Your task to perform on an android device: Show the shopping cart on costco.com. Search for "macbook" on costco.com, select the first entry, and add it to the cart. Image 0: 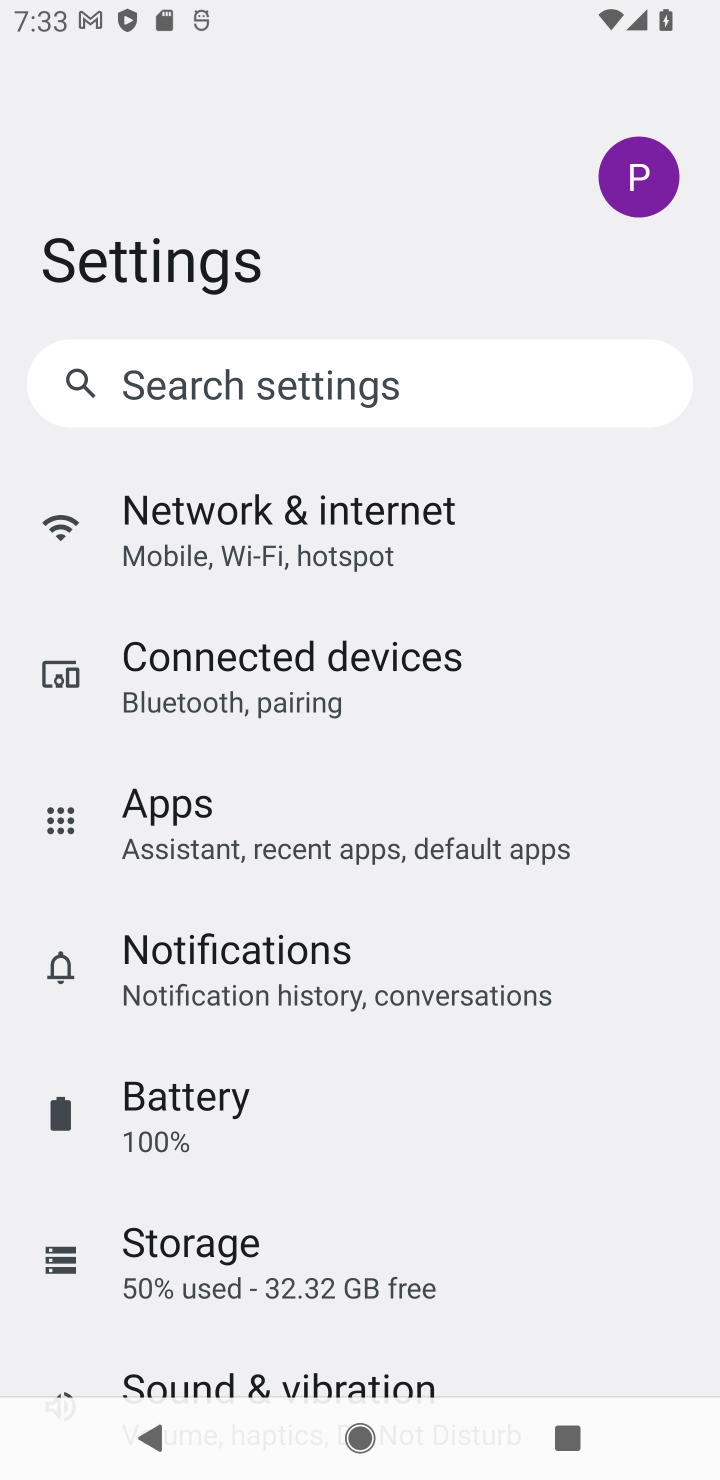
Step 0: press home button
Your task to perform on an android device: Show the shopping cart on costco.com. Search for "macbook" on costco.com, select the first entry, and add it to the cart. Image 1: 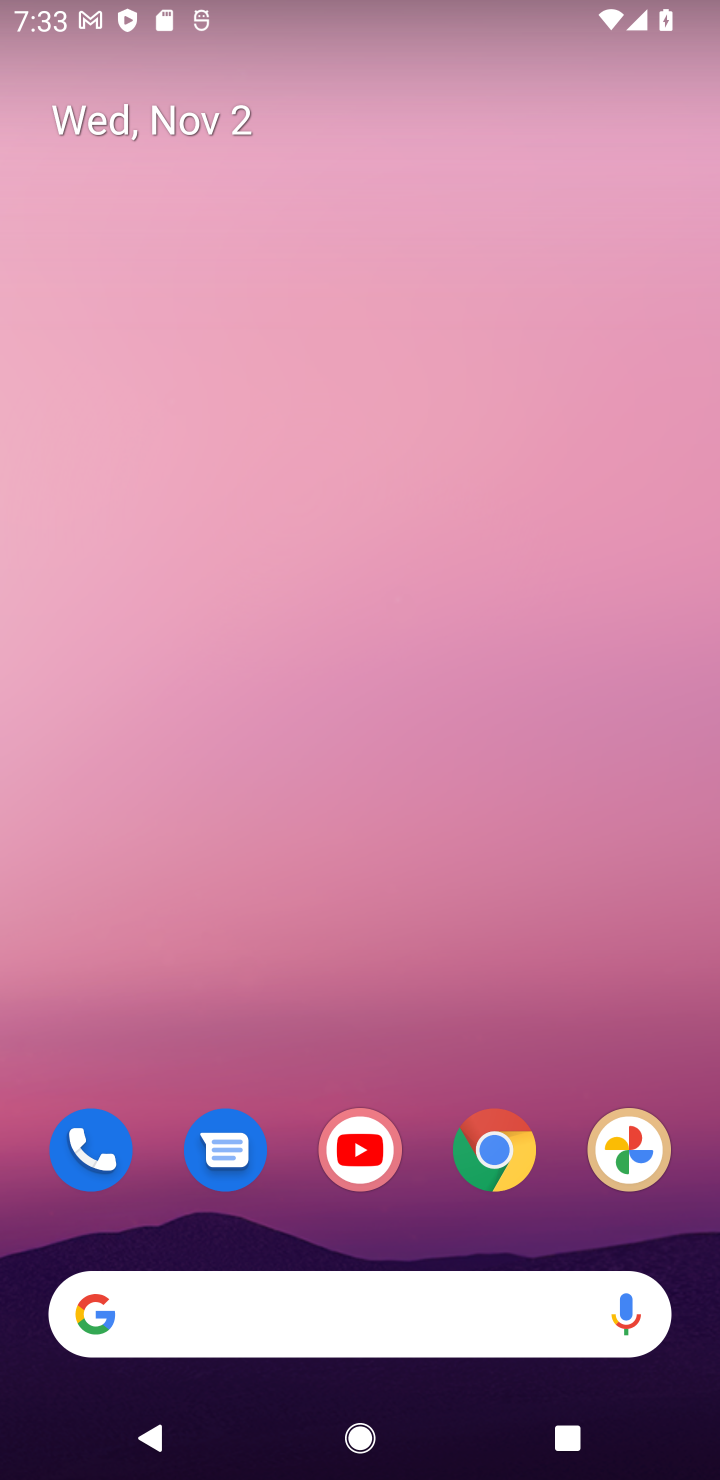
Step 1: click (502, 1127)
Your task to perform on an android device: Show the shopping cart on costco.com. Search for "macbook" on costco.com, select the first entry, and add it to the cart. Image 2: 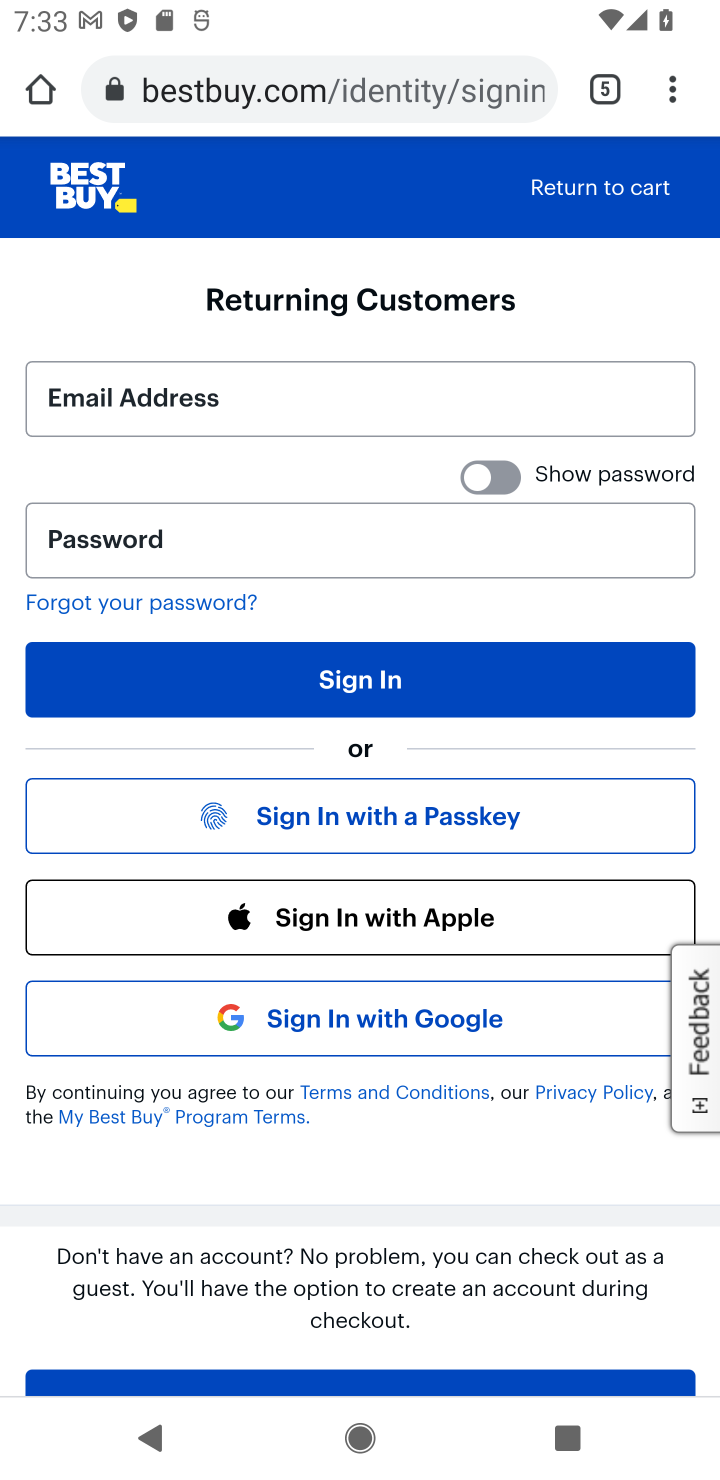
Step 2: click (594, 83)
Your task to perform on an android device: Show the shopping cart on costco.com. Search for "macbook" on costco.com, select the first entry, and add it to the cart. Image 3: 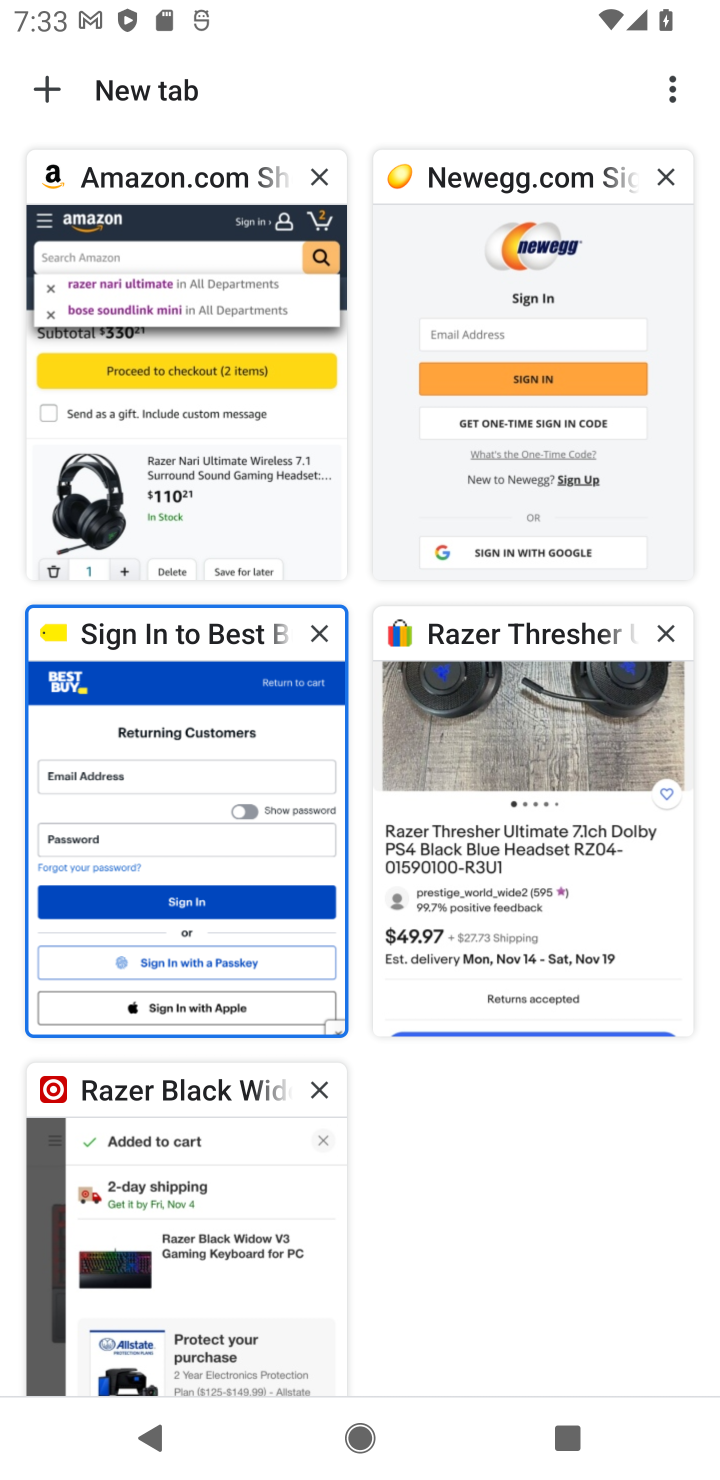
Step 3: click (118, 1124)
Your task to perform on an android device: Show the shopping cart on costco.com. Search for "macbook" on costco.com, select the first entry, and add it to the cart. Image 4: 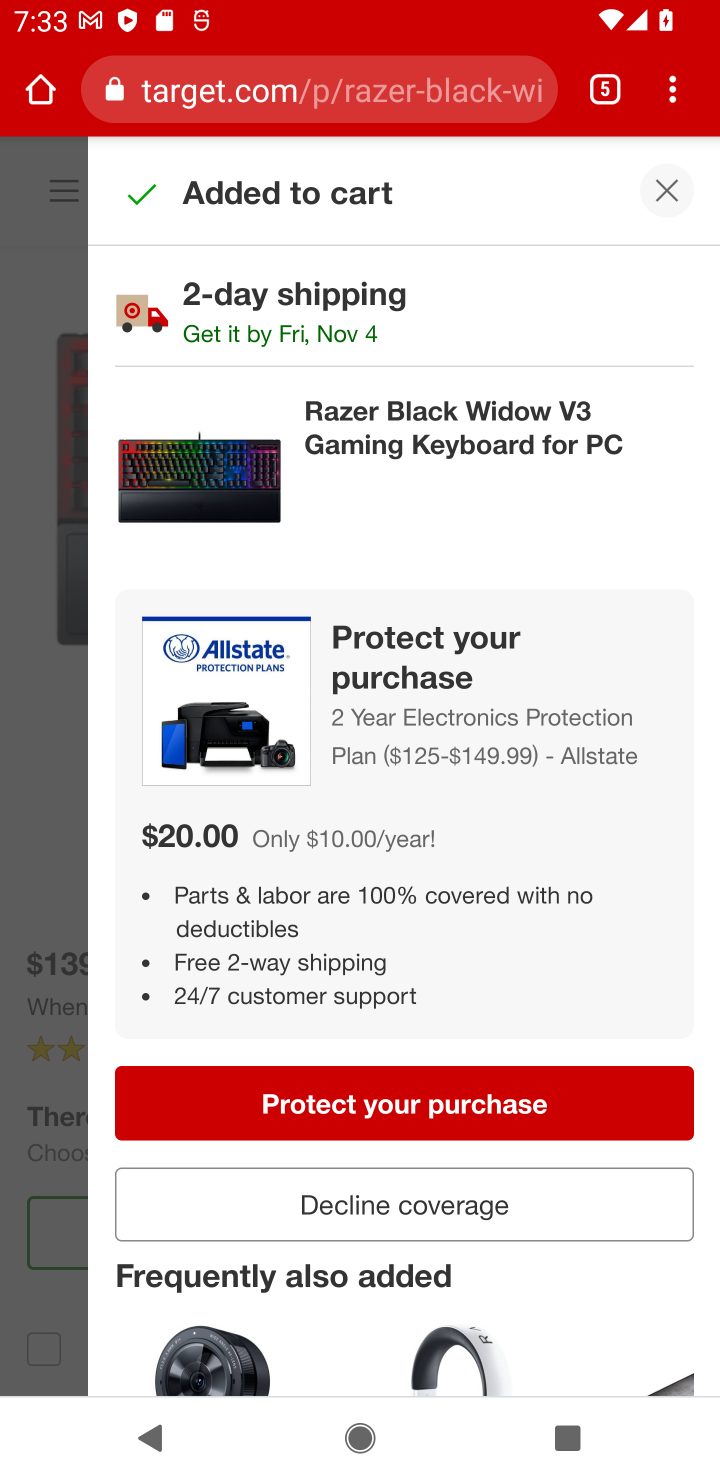
Step 4: click (595, 76)
Your task to perform on an android device: Show the shopping cart on costco.com. Search for "macbook" on costco.com, select the first entry, and add it to the cart. Image 5: 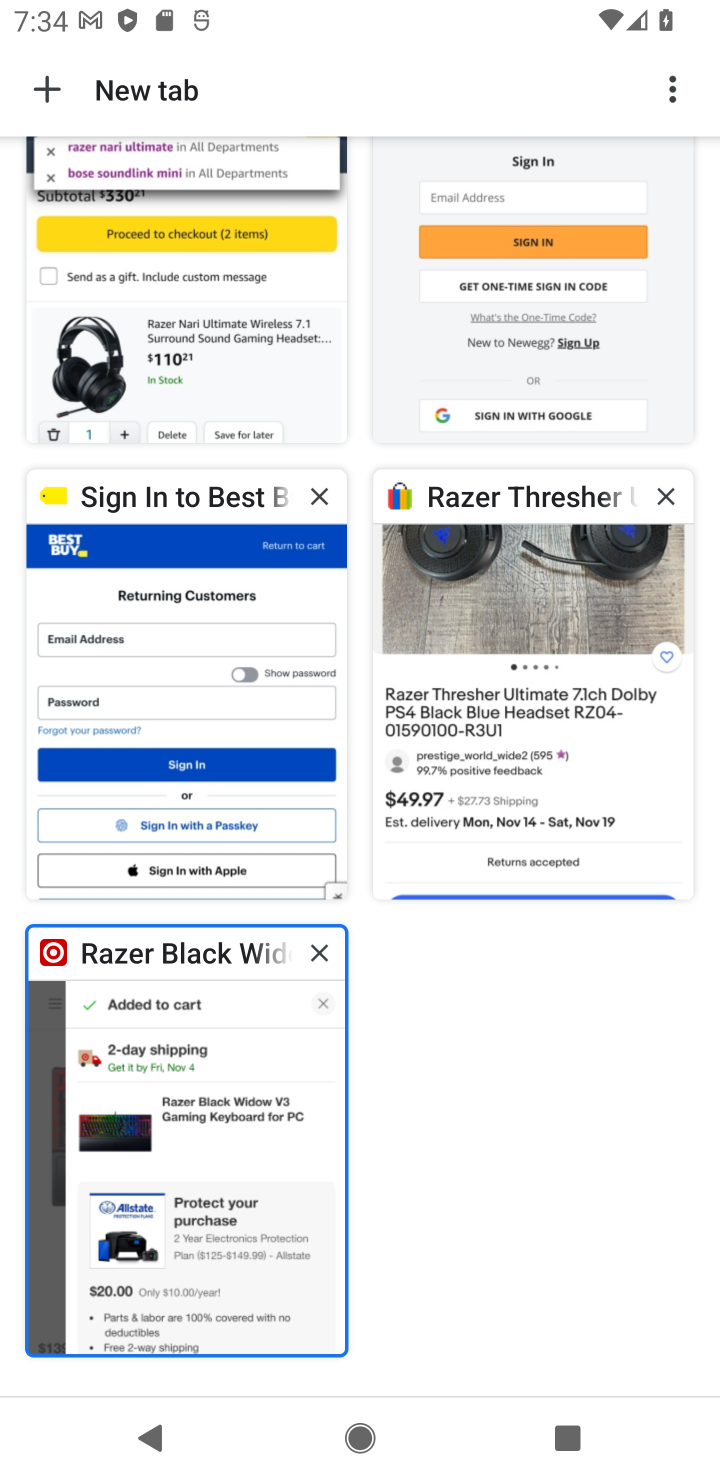
Step 5: click (475, 948)
Your task to perform on an android device: Show the shopping cart on costco.com. Search for "macbook" on costco.com, select the first entry, and add it to the cart. Image 6: 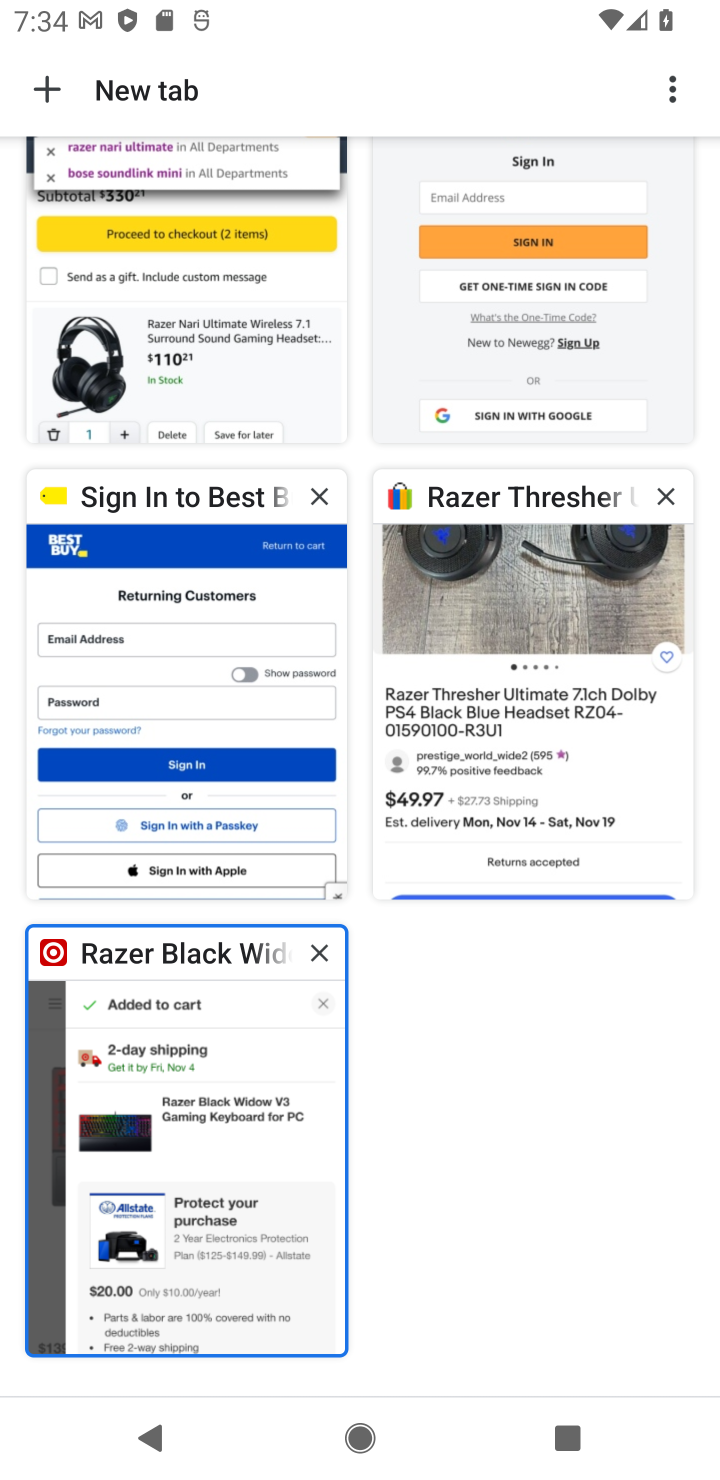
Step 6: drag from (444, 346) to (370, 1067)
Your task to perform on an android device: Show the shopping cart on costco.com. Search for "macbook" on costco.com, select the first entry, and add it to the cart. Image 7: 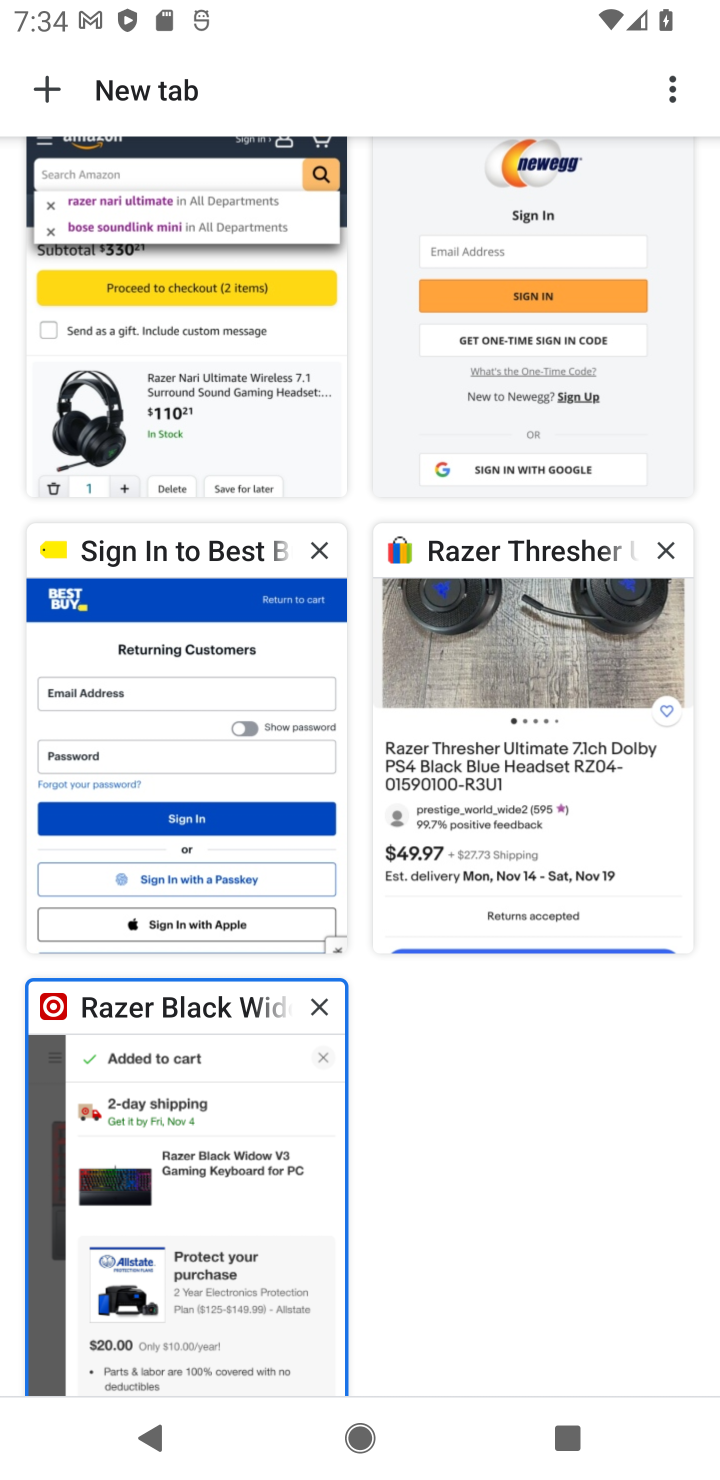
Step 7: drag from (496, 277) to (398, 1104)
Your task to perform on an android device: Show the shopping cart on costco.com. Search for "macbook" on costco.com, select the first entry, and add it to the cart. Image 8: 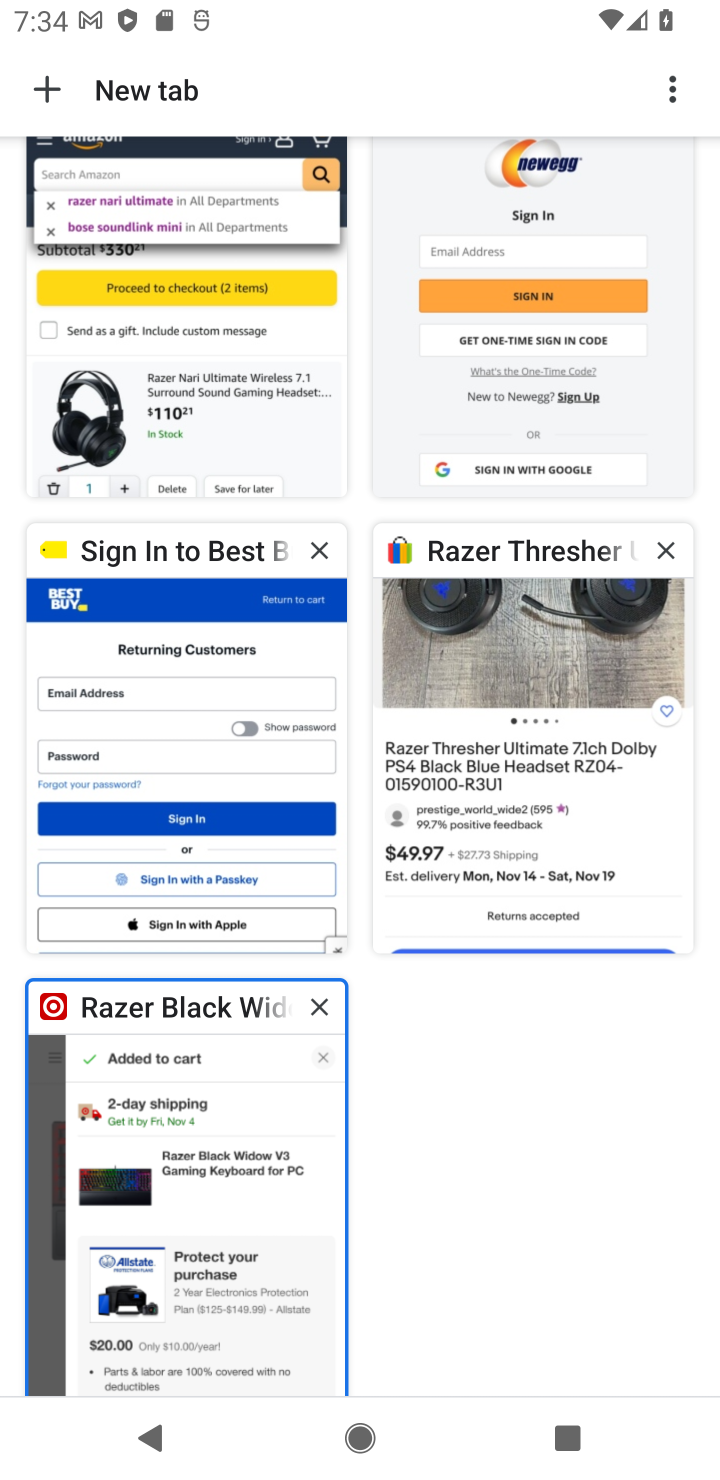
Step 8: click (45, 85)
Your task to perform on an android device: Show the shopping cart on costco.com. Search for "macbook" on costco.com, select the first entry, and add it to the cart. Image 9: 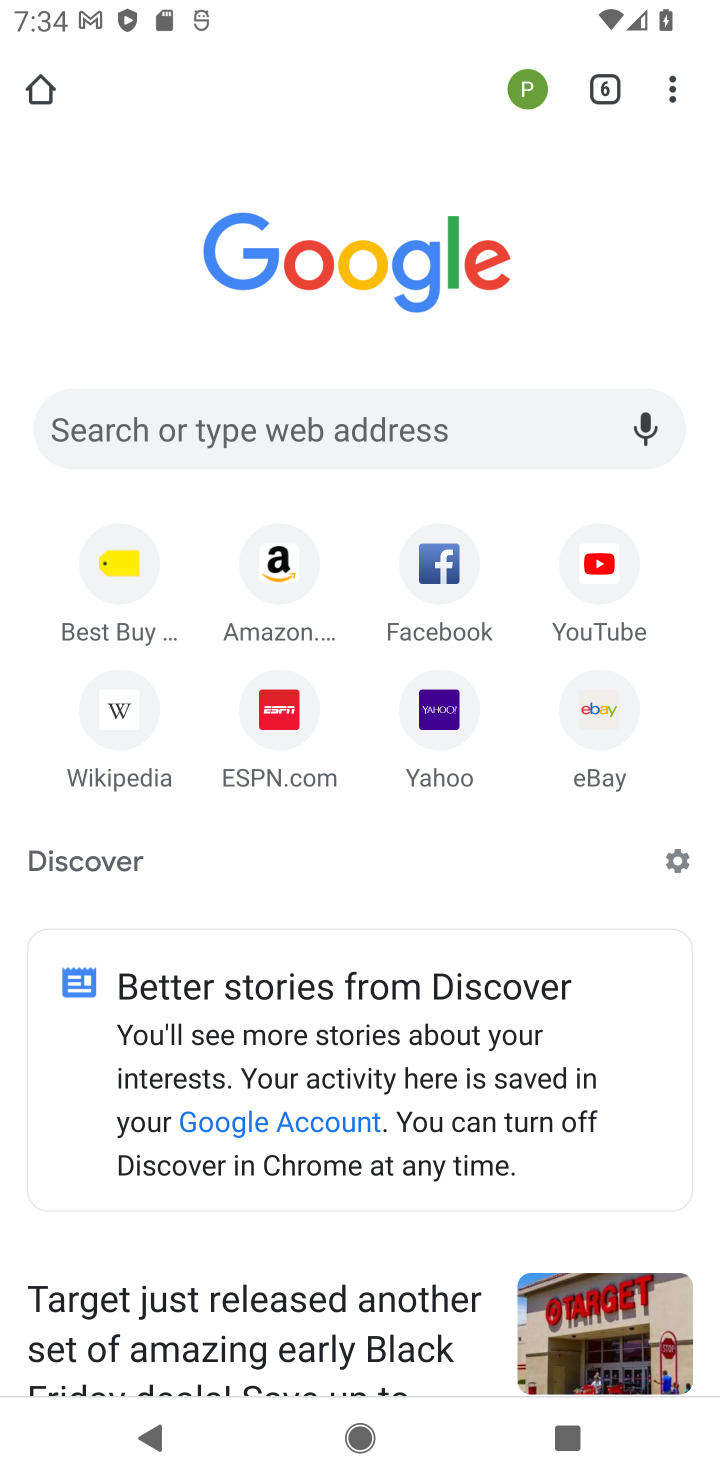
Step 9: click (337, 422)
Your task to perform on an android device: Show the shopping cart on costco.com. Search for "macbook" on costco.com, select the first entry, and add it to the cart. Image 10: 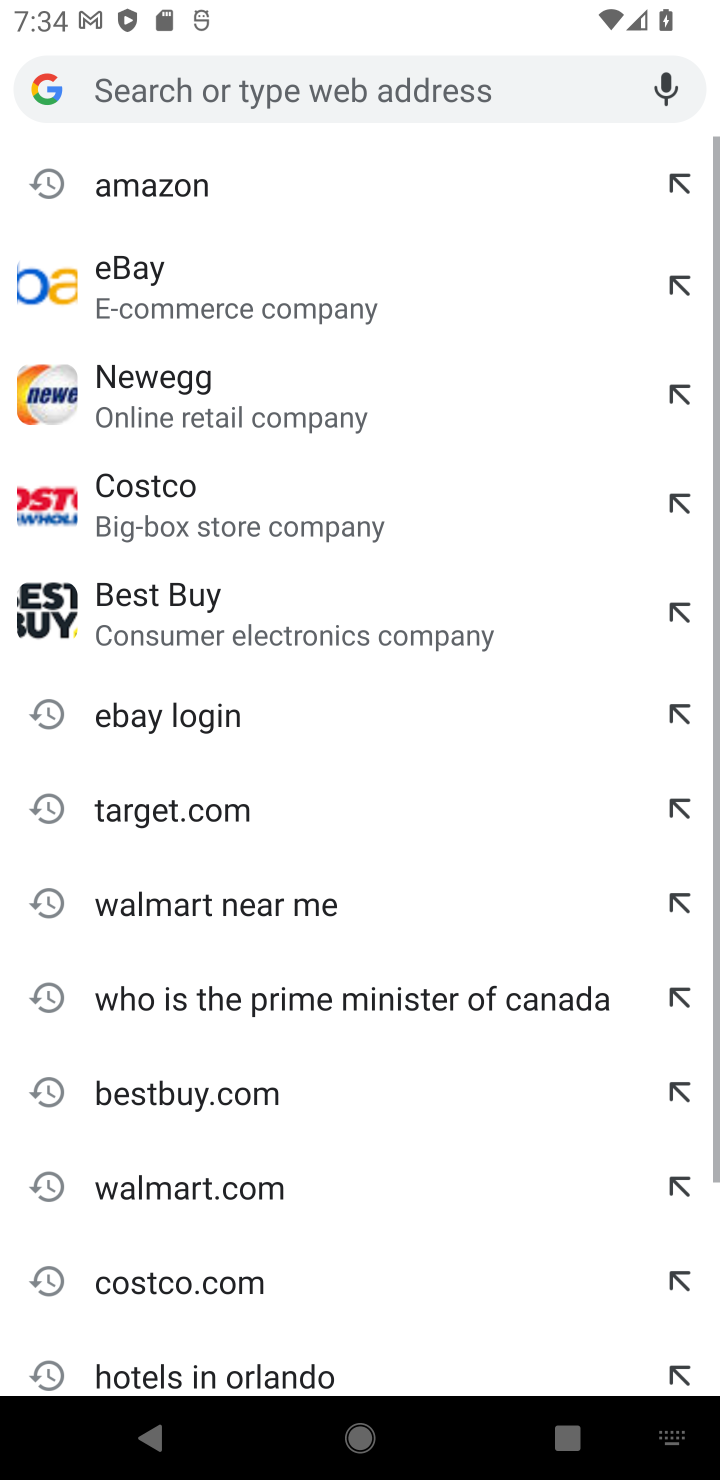
Step 10: type "costco"
Your task to perform on an android device: Show the shopping cart on costco.com. Search for "macbook" on costco.com, select the first entry, and add it to the cart. Image 11: 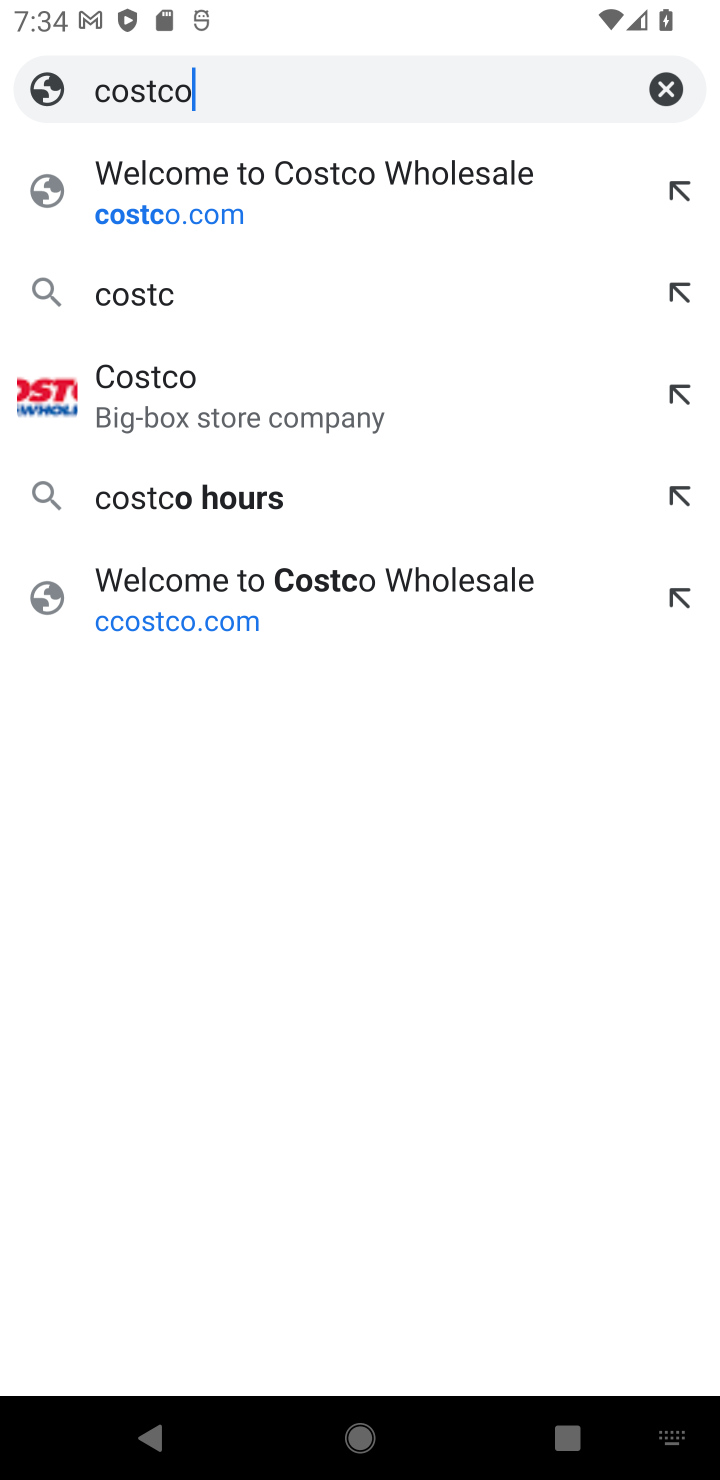
Step 11: click (200, 501)
Your task to perform on an android device: Show the shopping cart on costco.com. Search for "macbook" on costco.com, select the first entry, and add it to the cart. Image 12: 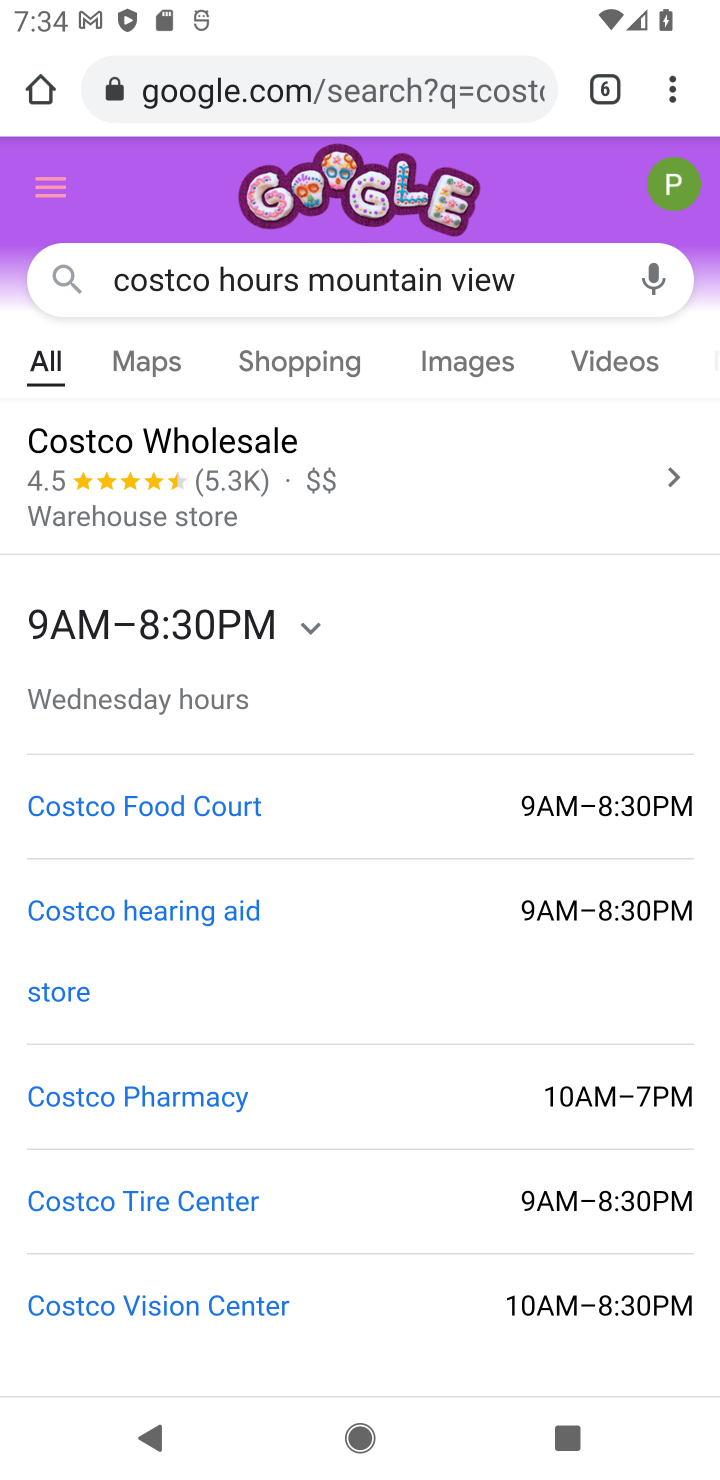
Step 12: drag from (302, 961) to (489, 68)
Your task to perform on an android device: Show the shopping cart on costco.com. Search for "macbook" on costco.com, select the first entry, and add it to the cart. Image 13: 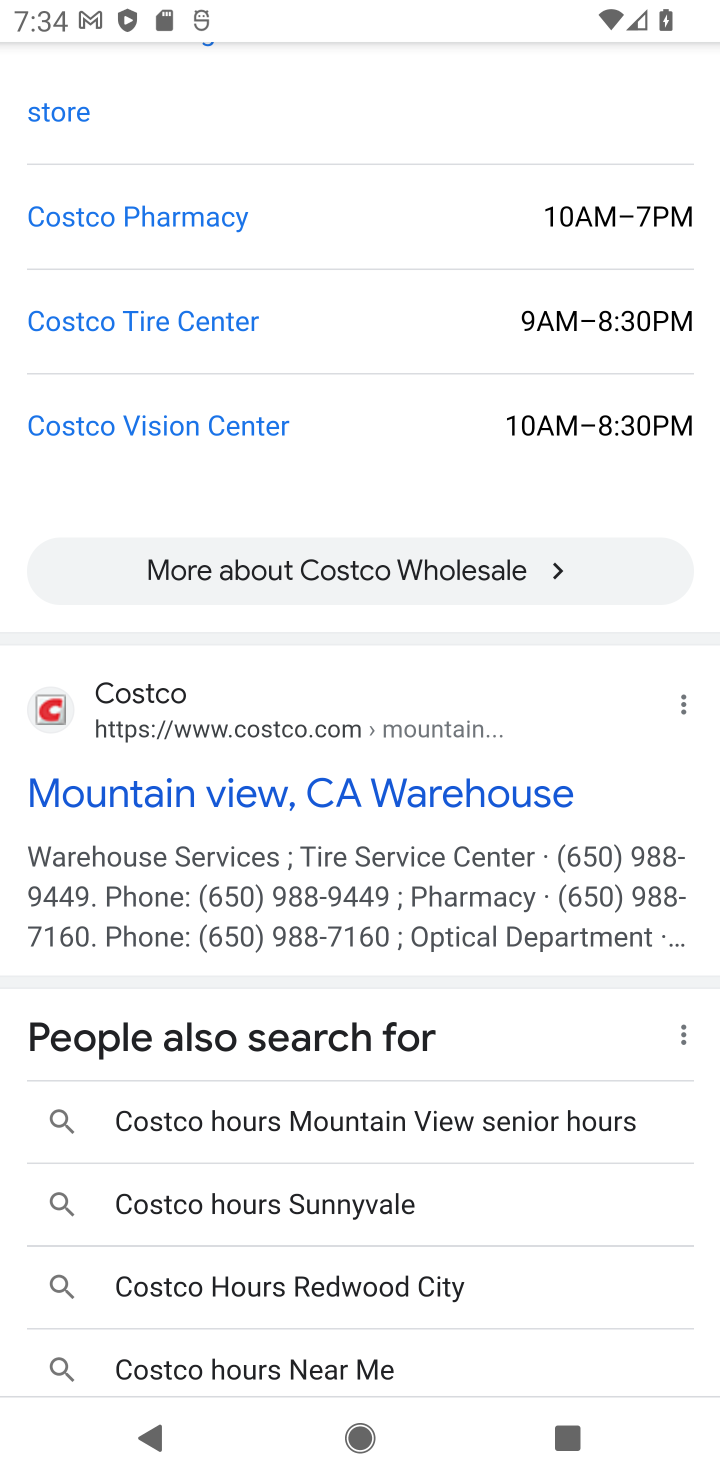
Step 13: click (344, 793)
Your task to perform on an android device: Show the shopping cart on costco.com. Search for "macbook" on costco.com, select the first entry, and add it to the cart. Image 14: 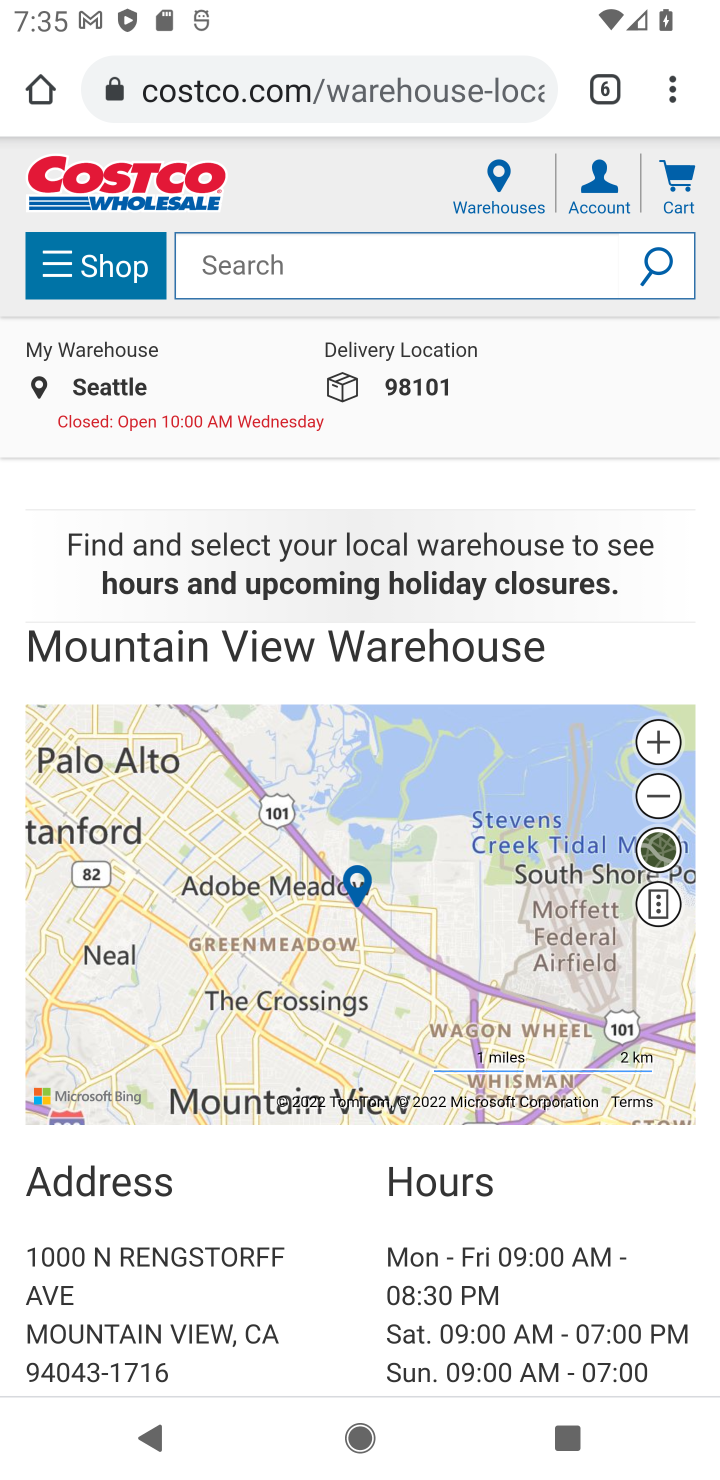
Step 14: click (309, 244)
Your task to perform on an android device: Show the shopping cart on costco.com. Search for "macbook" on costco.com, select the first entry, and add it to the cart. Image 15: 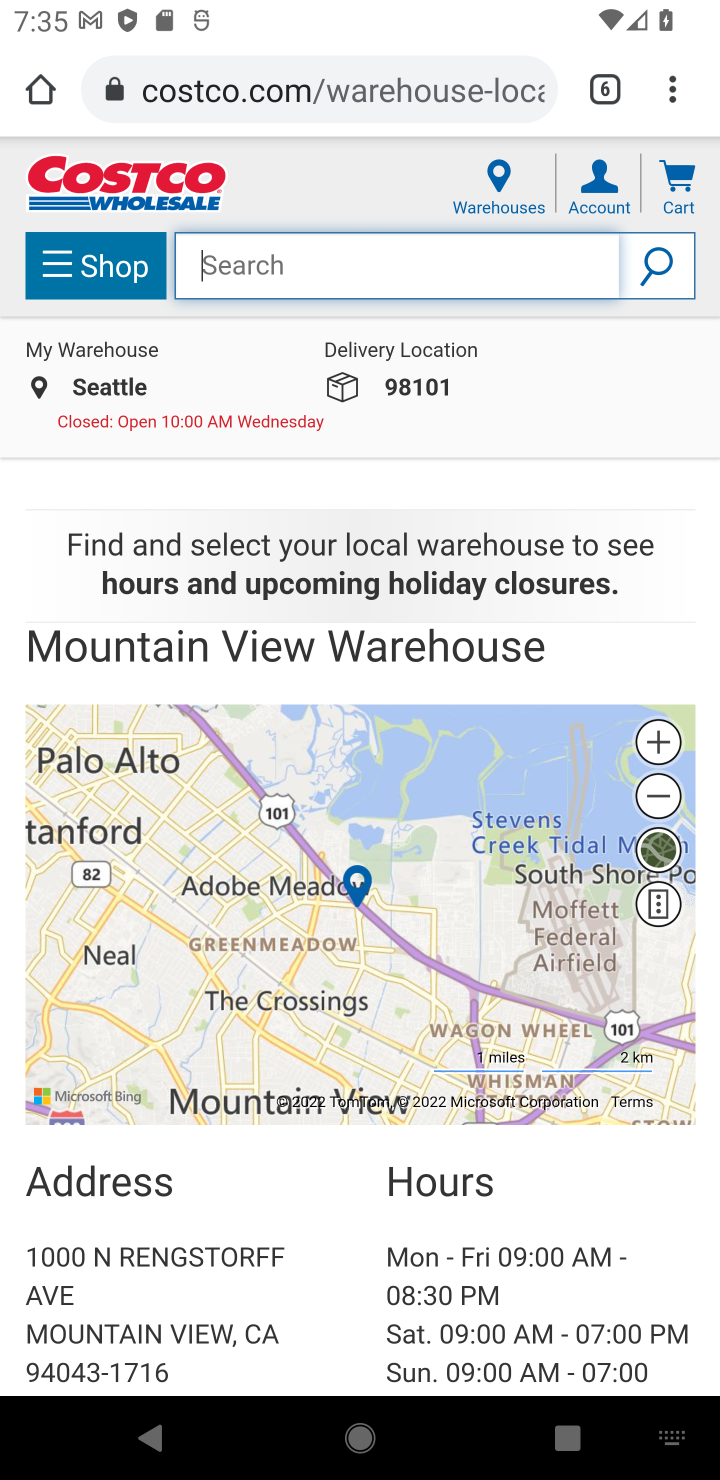
Step 15: type "macbook"
Your task to perform on an android device: Show the shopping cart on costco.com. Search for "macbook" on costco.com, select the first entry, and add it to the cart. Image 16: 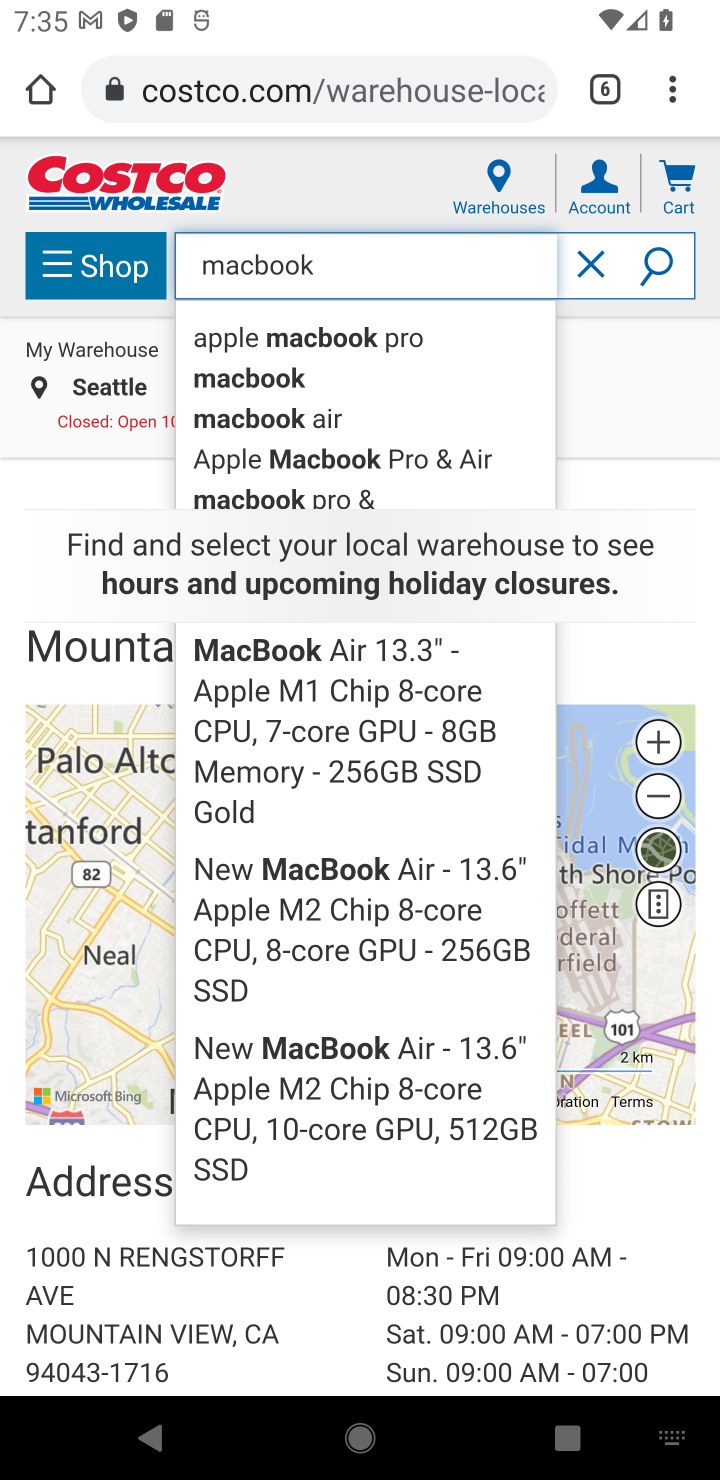
Step 16: click (308, 335)
Your task to perform on an android device: Show the shopping cart on costco.com. Search for "macbook" on costco.com, select the first entry, and add it to the cart. Image 17: 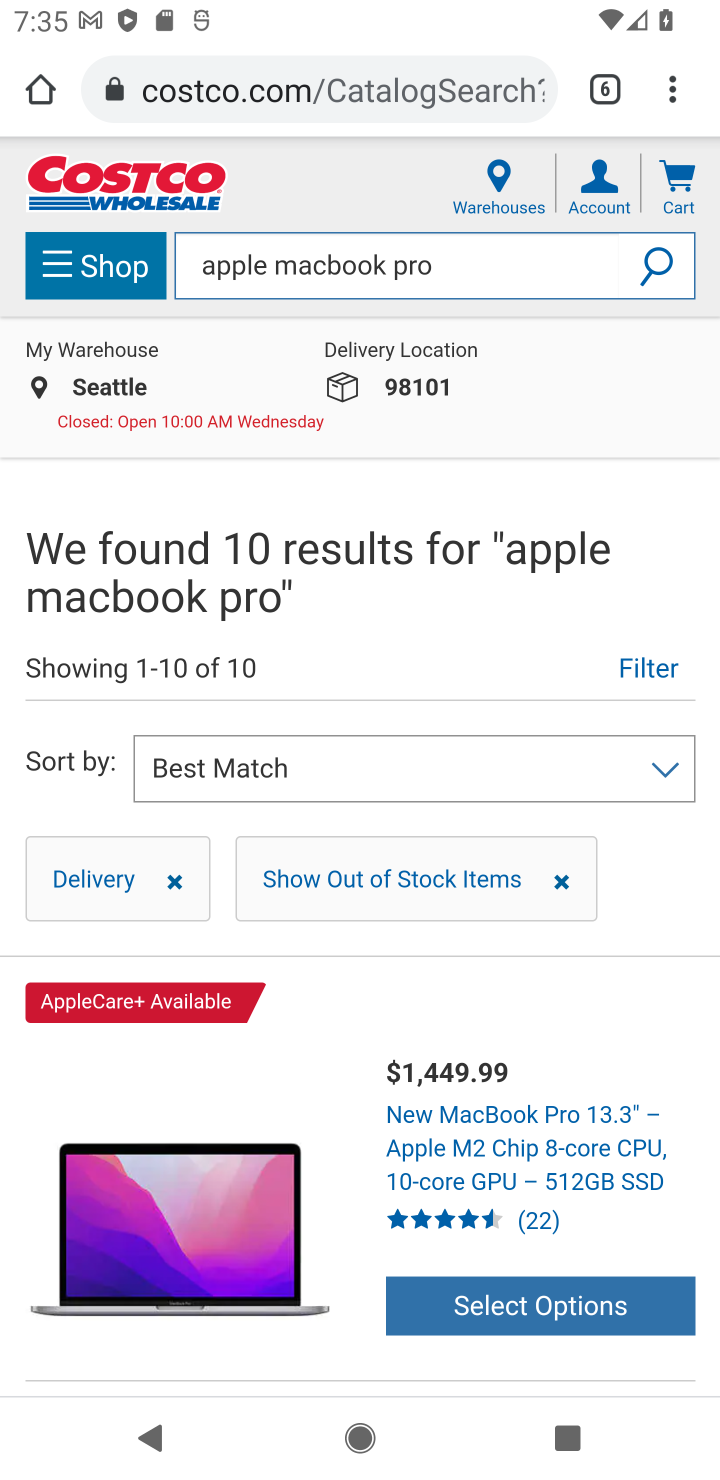
Step 17: click (497, 1164)
Your task to perform on an android device: Show the shopping cart on costco.com. Search for "macbook" on costco.com, select the first entry, and add it to the cart. Image 18: 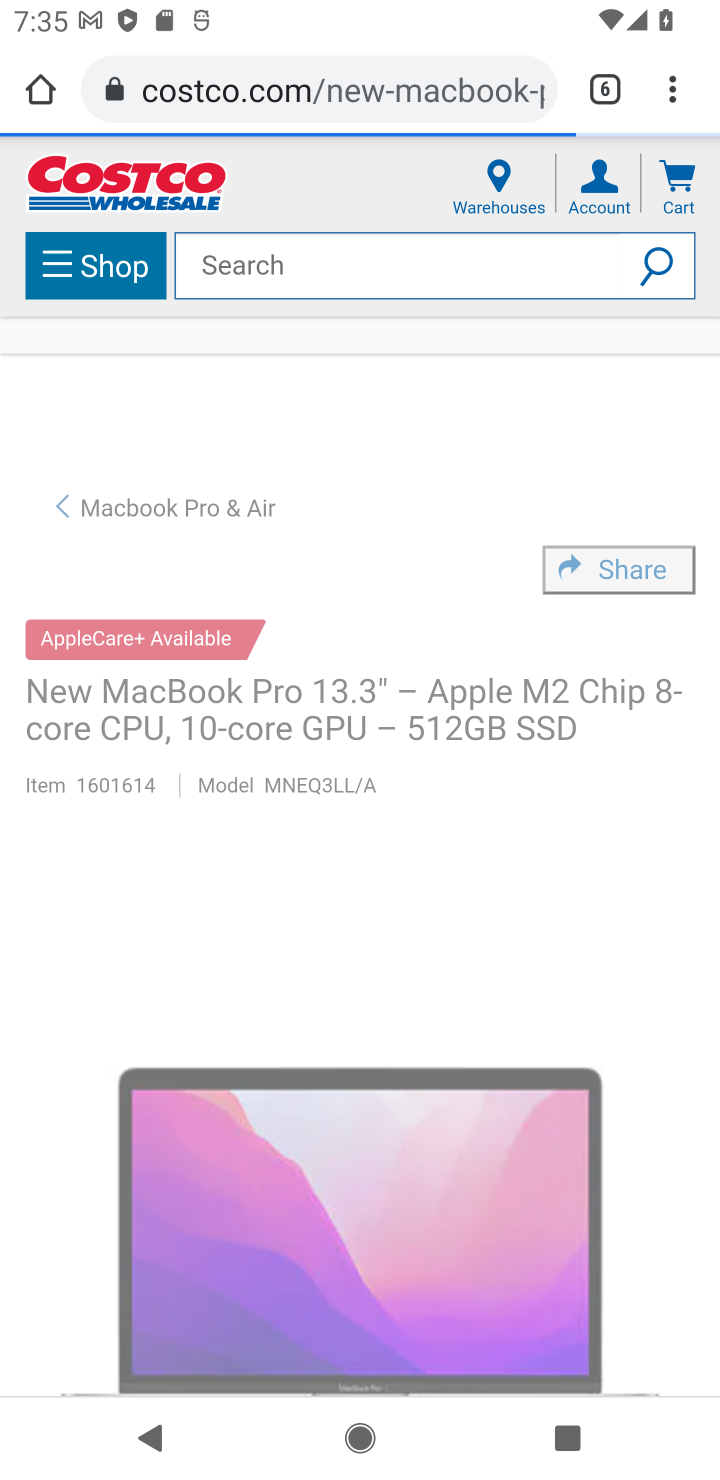
Step 18: drag from (323, 1010) to (384, 241)
Your task to perform on an android device: Show the shopping cart on costco.com. Search for "macbook" on costco.com, select the first entry, and add it to the cart. Image 19: 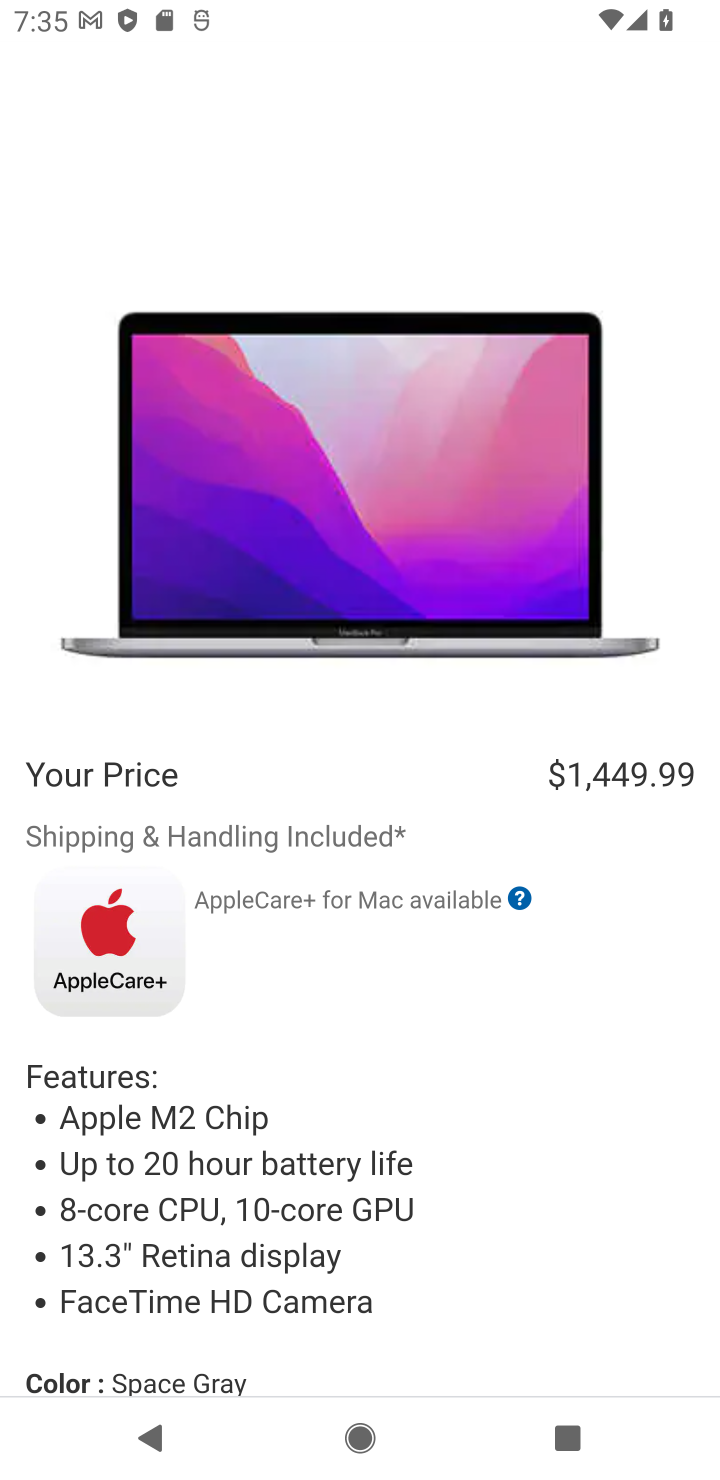
Step 19: drag from (359, 899) to (472, 297)
Your task to perform on an android device: Show the shopping cart on costco.com. Search for "macbook" on costco.com, select the first entry, and add it to the cart. Image 20: 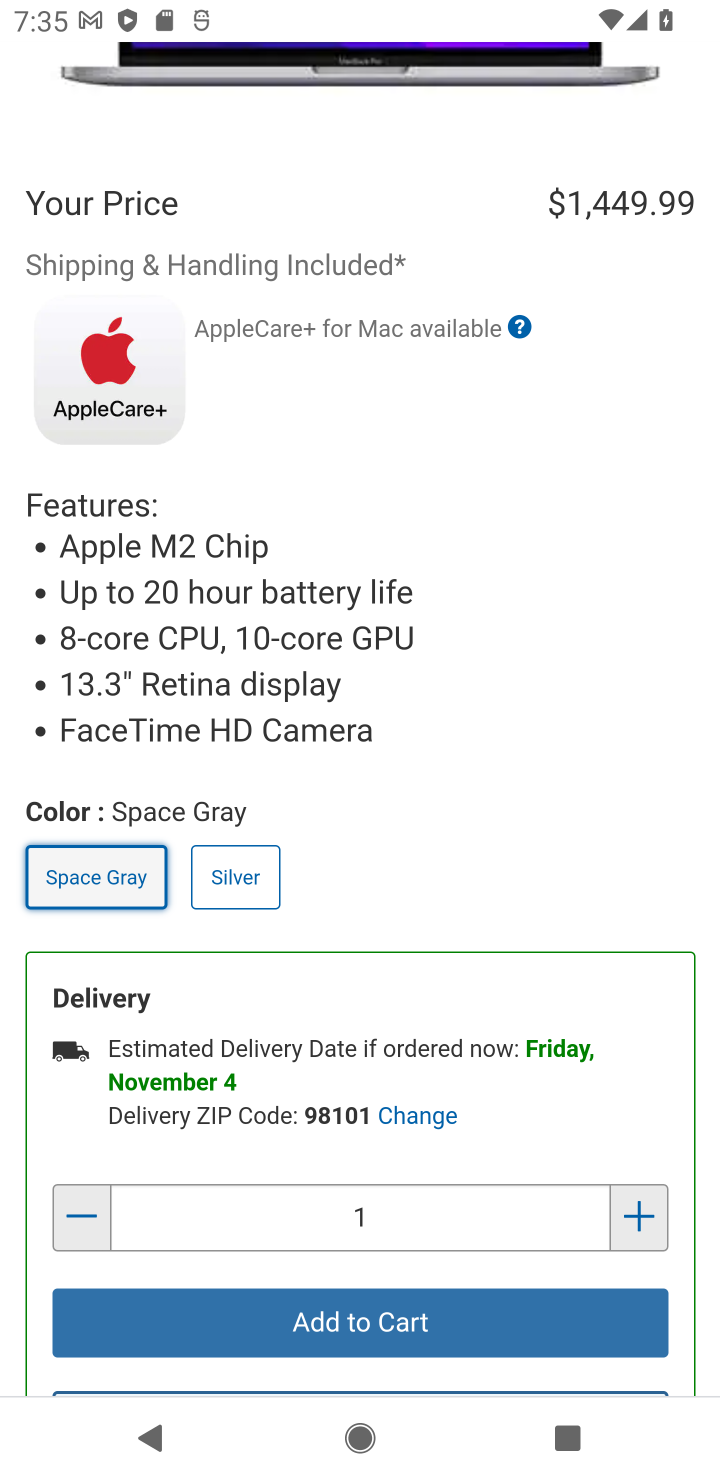
Step 20: click (340, 1314)
Your task to perform on an android device: Show the shopping cart on costco.com. Search for "macbook" on costco.com, select the first entry, and add it to the cart. Image 21: 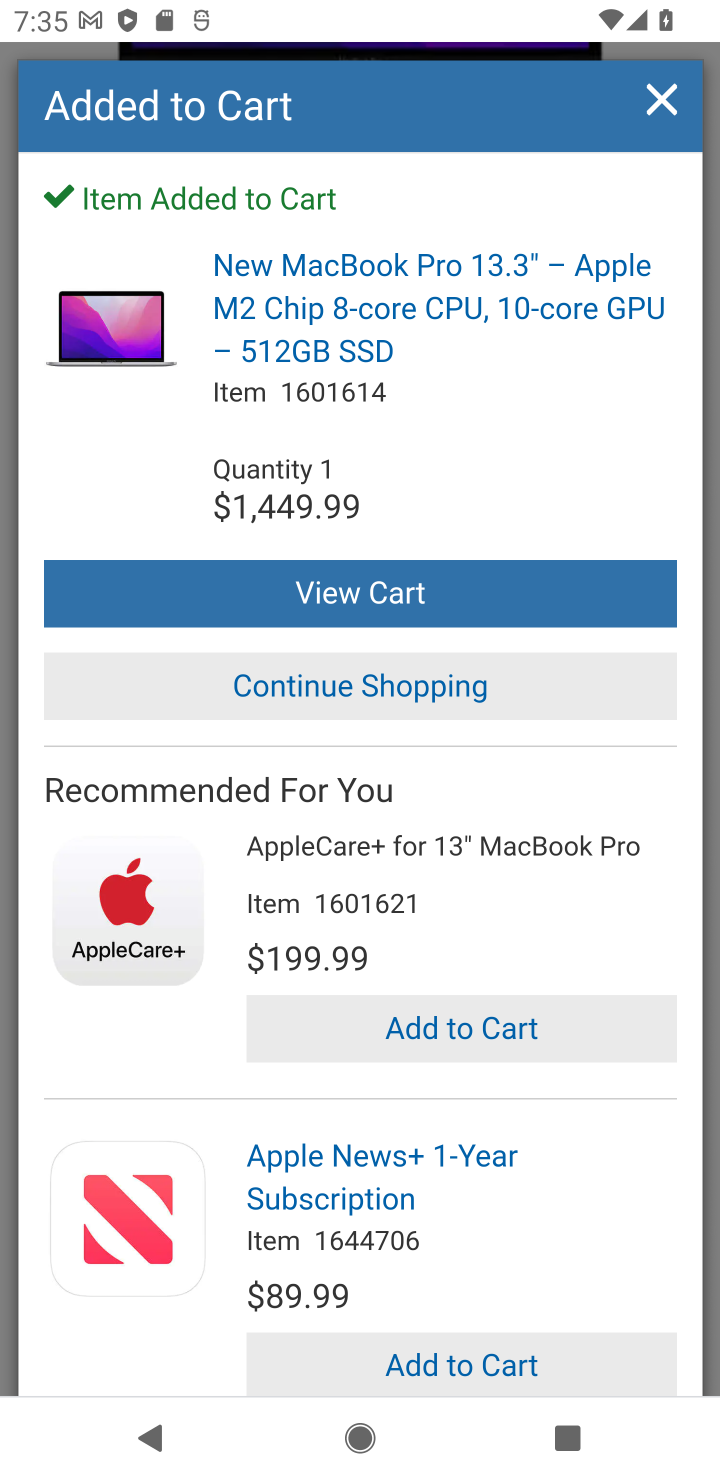
Step 21: task complete